Your task to perform on an android device: add a contact in the contacts app Image 0: 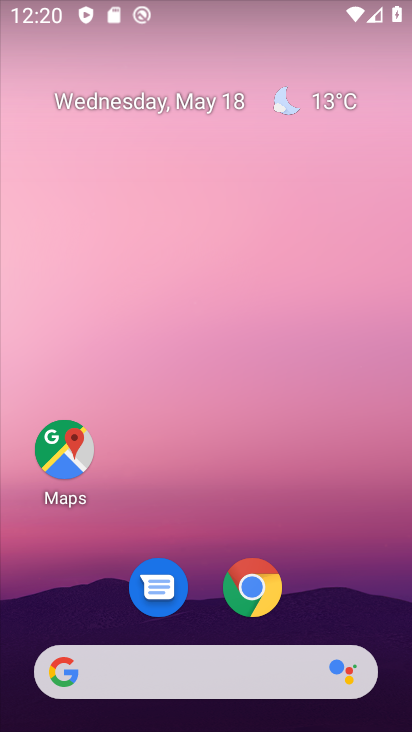
Step 0: drag from (206, 589) to (307, 68)
Your task to perform on an android device: add a contact in the contacts app Image 1: 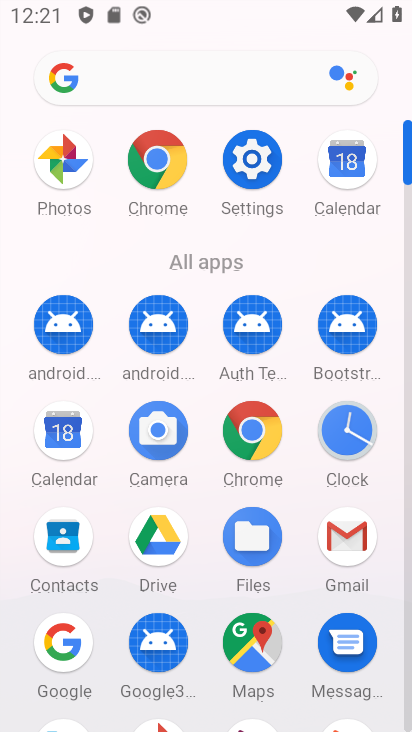
Step 1: click (71, 538)
Your task to perform on an android device: add a contact in the contacts app Image 2: 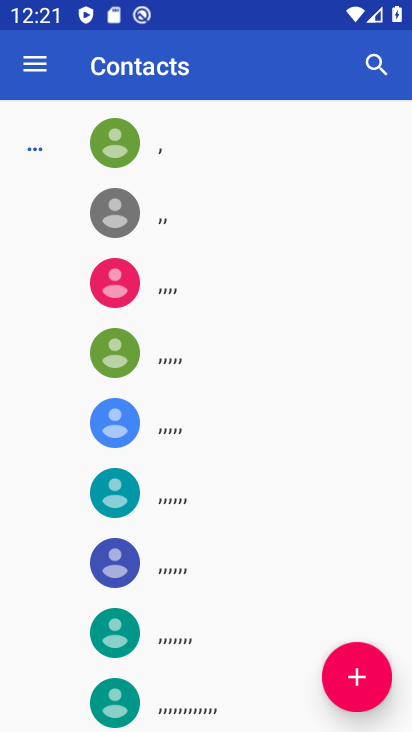
Step 2: click (364, 672)
Your task to perform on an android device: add a contact in the contacts app Image 3: 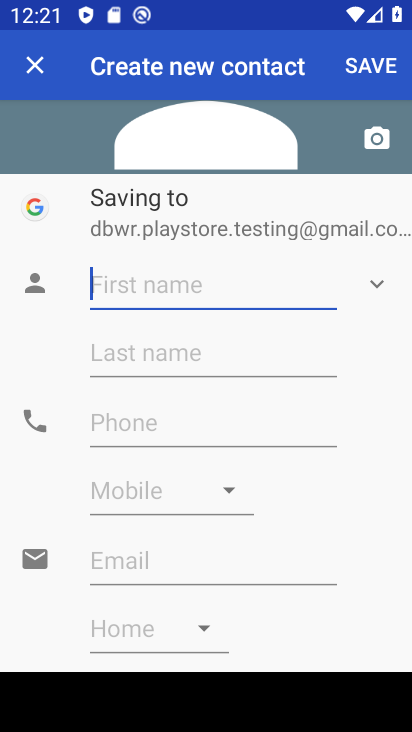
Step 3: click (141, 280)
Your task to perform on an android device: add a contact in the contacts app Image 4: 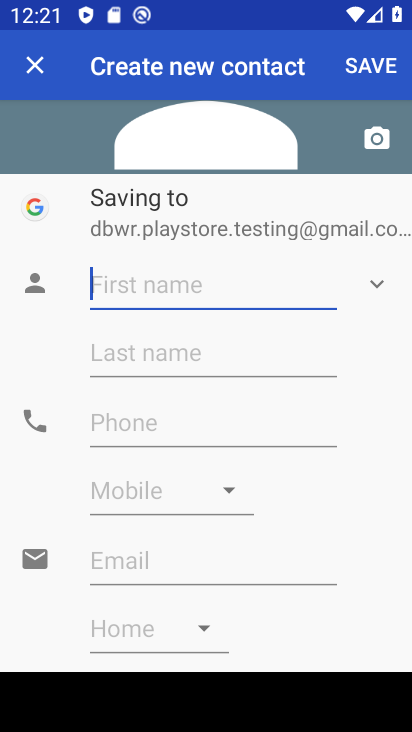
Step 4: type "hhv"
Your task to perform on an android device: add a contact in the contacts app Image 5: 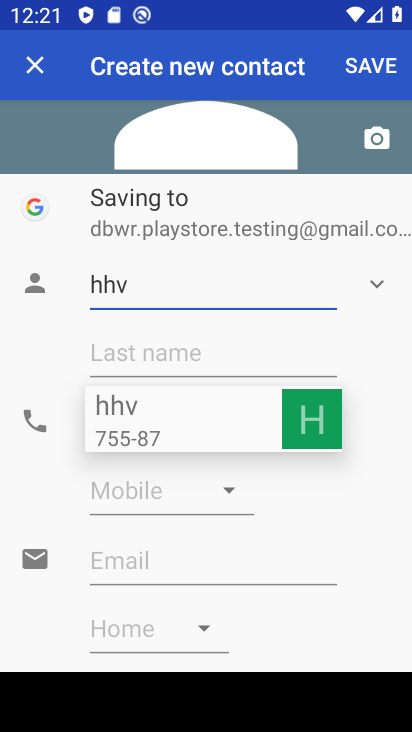
Step 5: click (181, 408)
Your task to perform on an android device: add a contact in the contacts app Image 6: 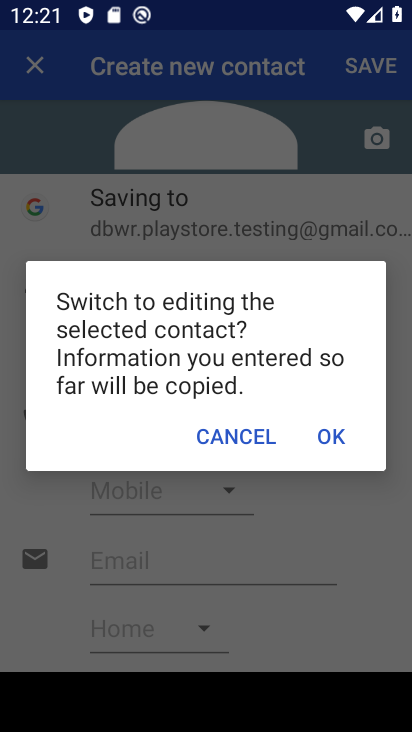
Step 6: click (328, 435)
Your task to perform on an android device: add a contact in the contacts app Image 7: 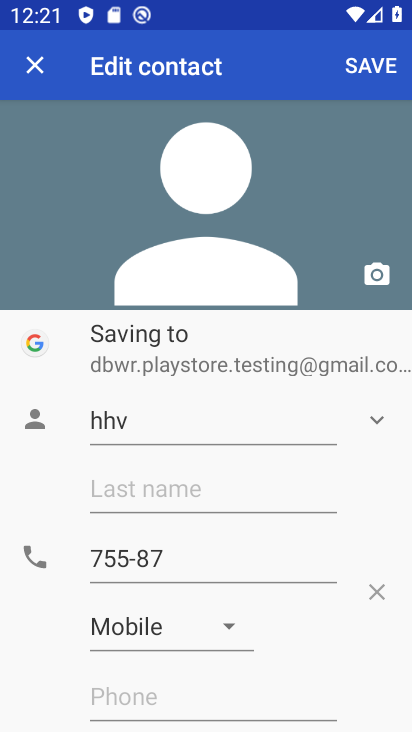
Step 7: click (368, 61)
Your task to perform on an android device: add a contact in the contacts app Image 8: 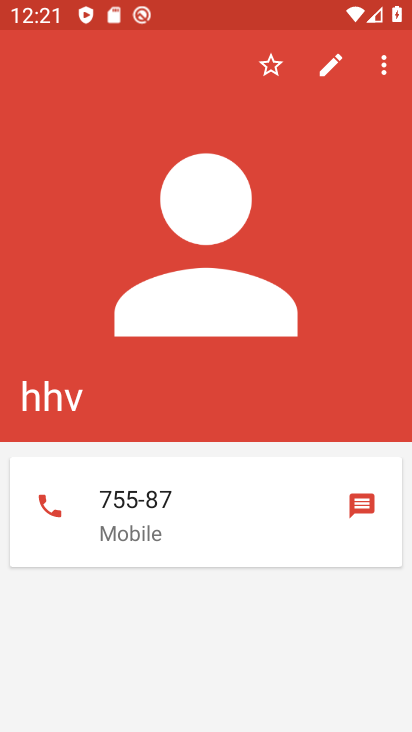
Step 8: task complete